Your task to perform on an android device: Is it going to rain this weekend? Image 0: 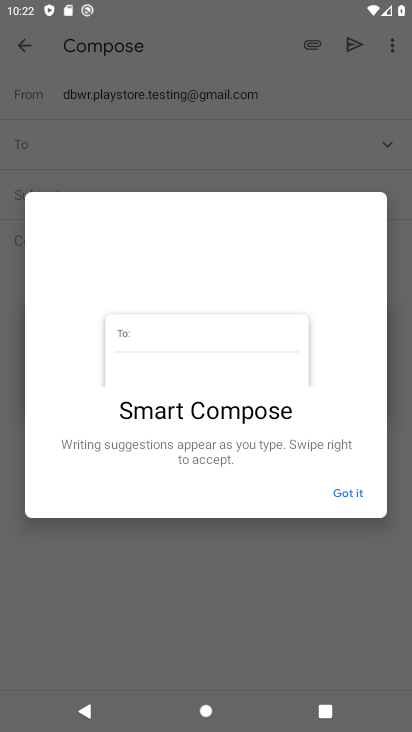
Step 0: press home button
Your task to perform on an android device: Is it going to rain this weekend? Image 1: 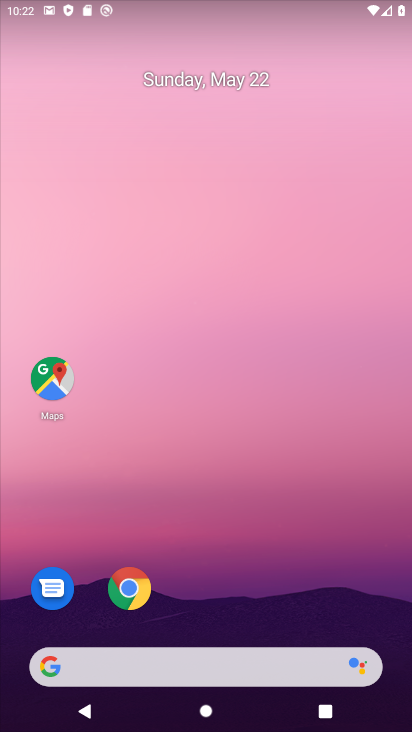
Step 1: drag from (245, 587) to (240, 103)
Your task to perform on an android device: Is it going to rain this weekend? Image 2: 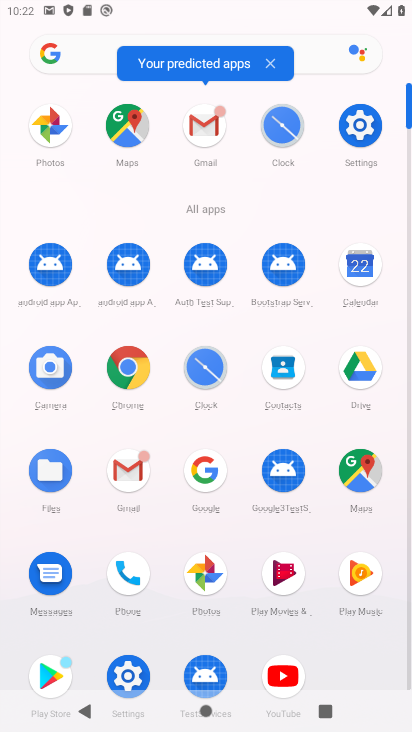
Step 2: click (203, 467)
Your task to perform on an android device: Is it going to rain this weekend? Image 3: 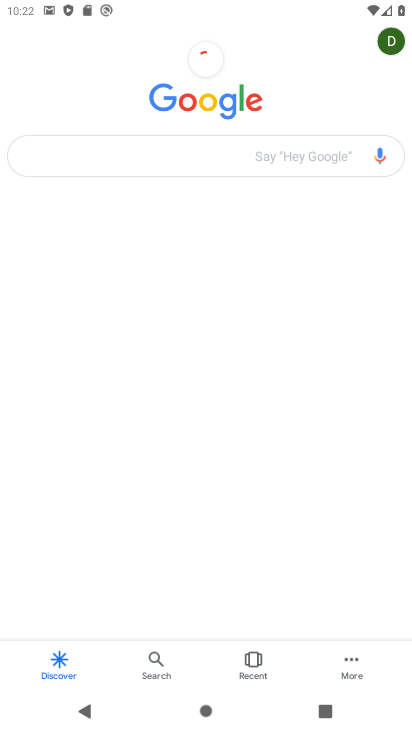
Step 3: click (197, 148)
Your task to perform on an android device: Is it going to rain this weekend? Image 4: 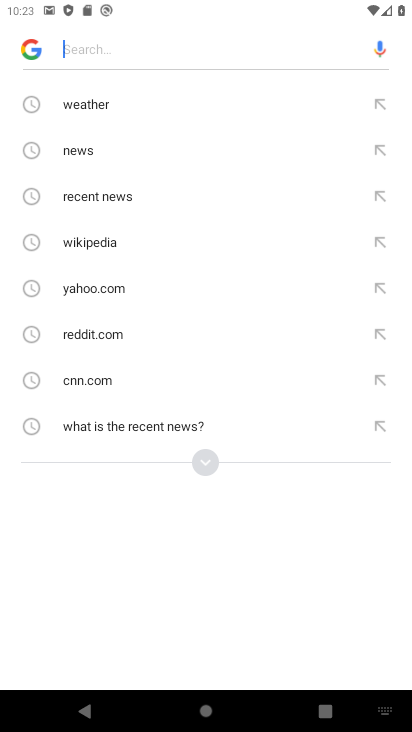
Step 4: type "Is it going to rain this weekend"
Your task to perform on an android device: Is it going to rain this weekend? Image 5: 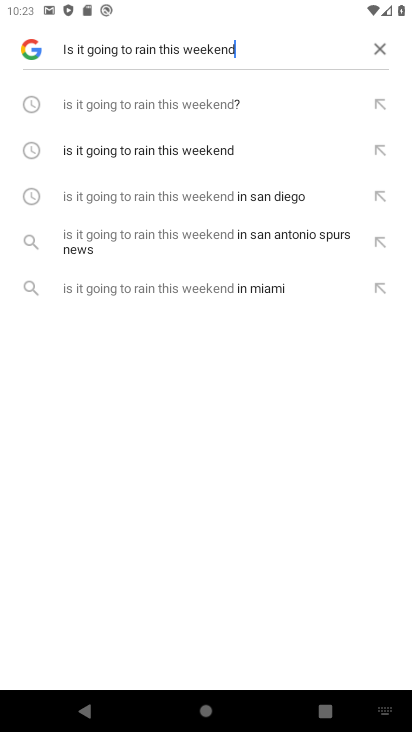
Step 5: click (110, 108)
Your task to perform on an android device: Is it going to rain this weekend? Image 6: 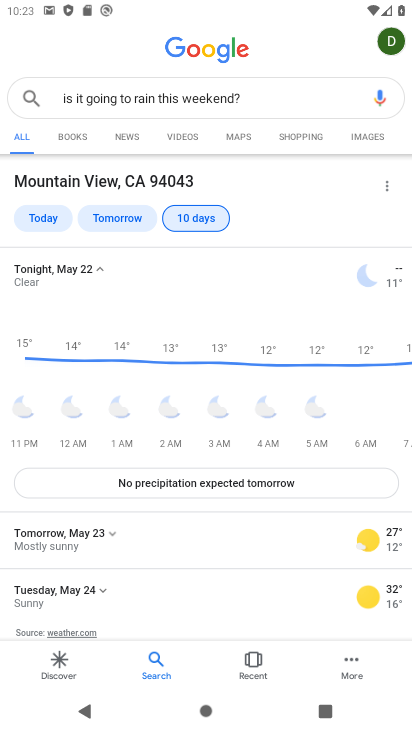
Step 6: task complete